Your task to perform on an android device: Open Amazon Image 0: 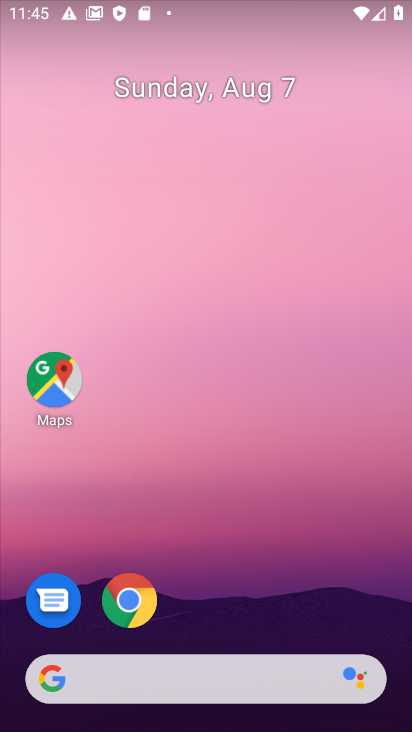
Step 0: click (147, 599)
Your task to perform on an android device: Open Amazon Image 1: 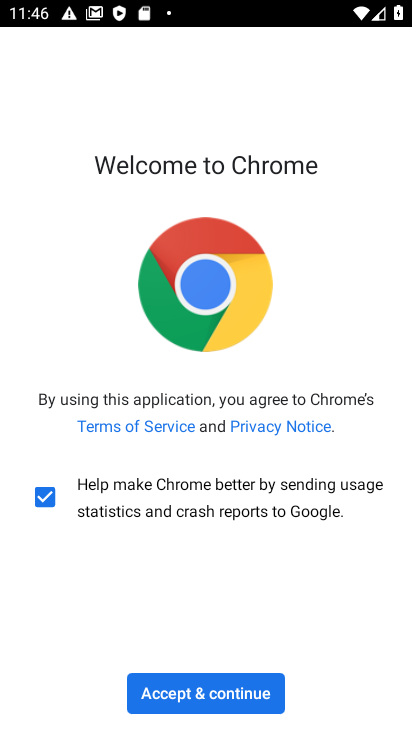
Step 1: click (248, 686)
Your task to perform on an android device: Open Amazon Image 2: 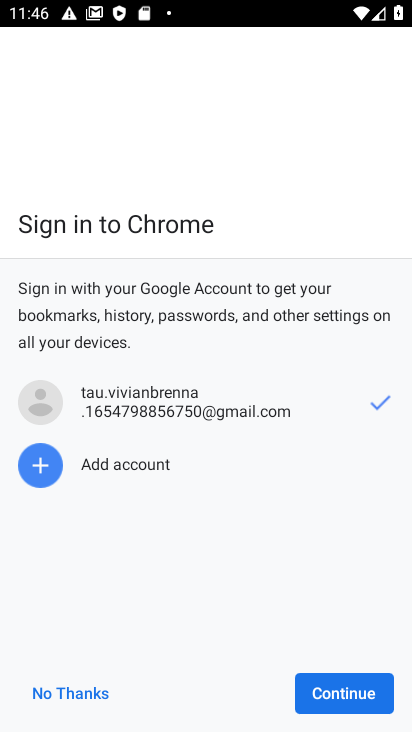
Step 2: click (386, 698)
Your task to perform on an android device: Open Amazon Image 3: 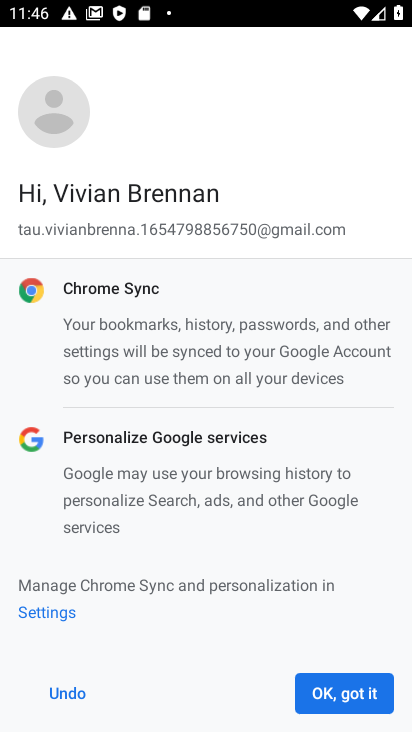
Step 3: click (321, 689)
Your task to perform on an android device: Open Amazon Image 4: 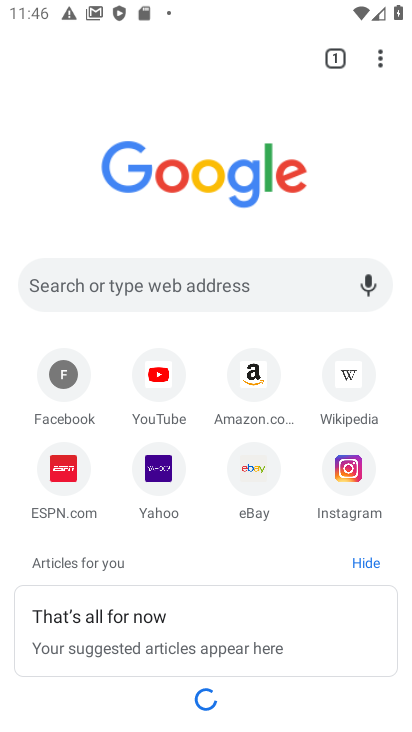
Step 4: click (245, 396)
Your task to perform on an android device: Open Amazon Image 5: 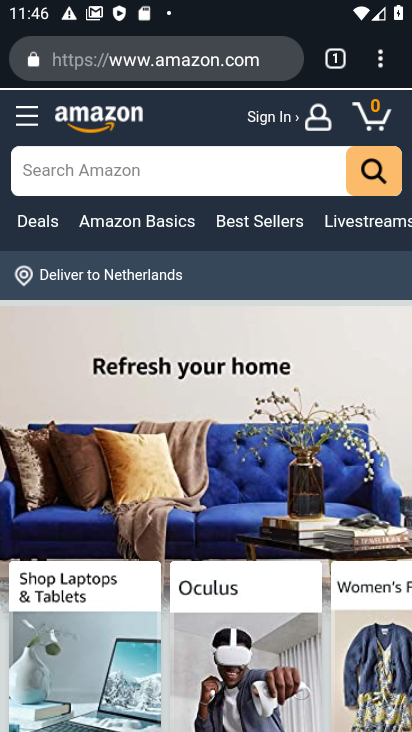
Step 5: task complete